Your task to perform on an android device: open sync settings in chrome Image 0: 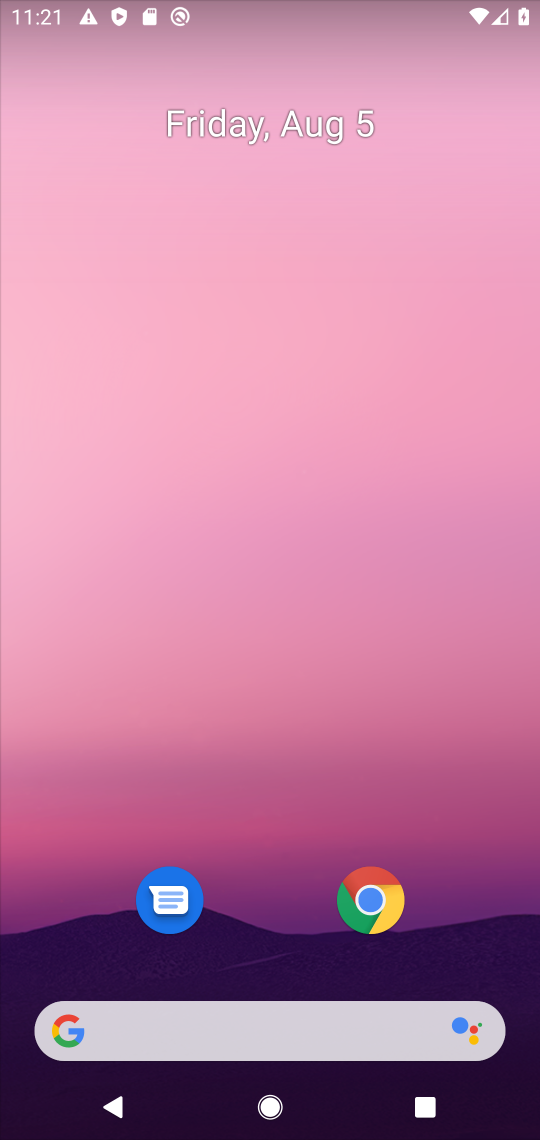
Step 0: click (369, 907)
Your task to perform on an android device: open sync settings in chrome Image 1: 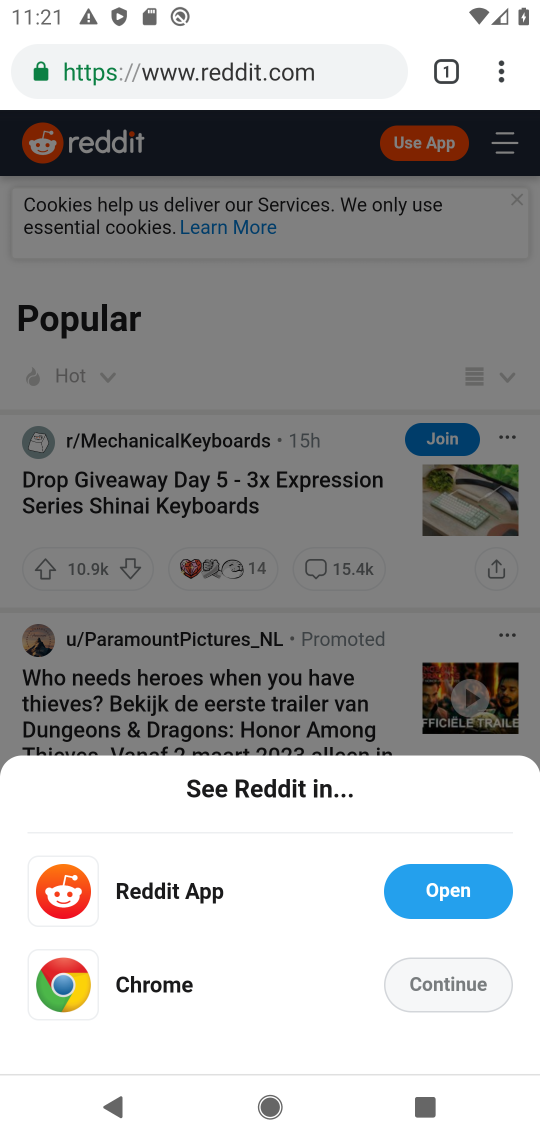
Step 1: click (499, 76)
Your task to perform on an android device: open sync settings in chrome Image 2: 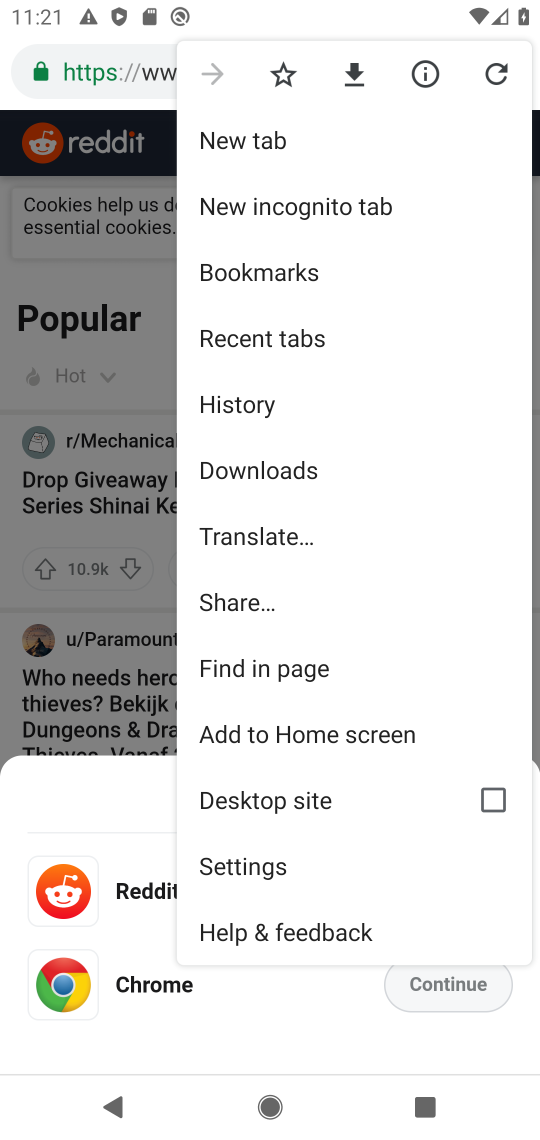
Step 2: click (245, 859)
Your task to perform on an android device: open sync settings in chrome Image 3: 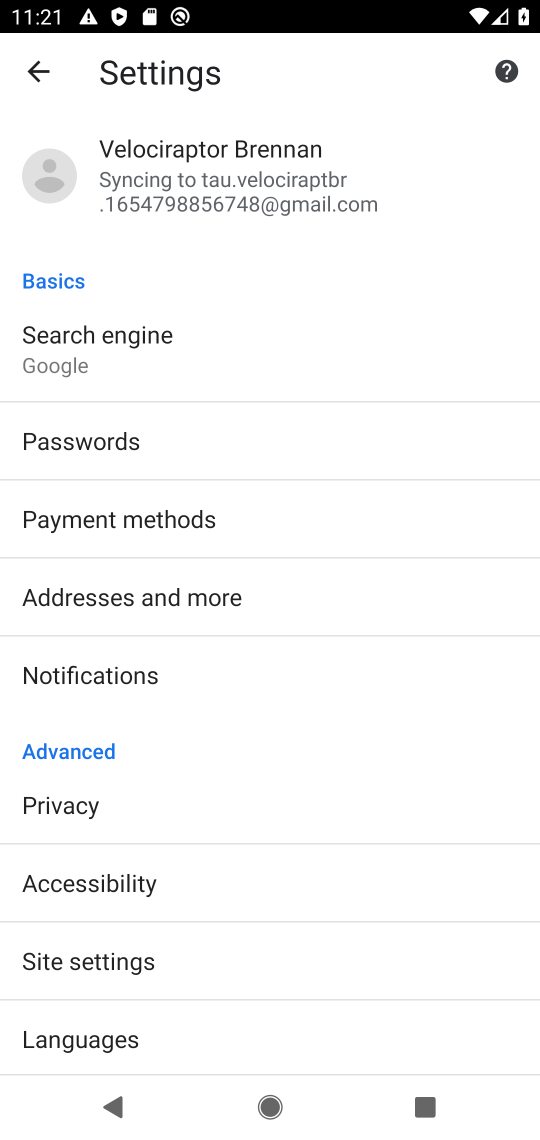
Step 3: click (68, 960)
Your task to perform on an android device: open sync settings in chrome Image 4: 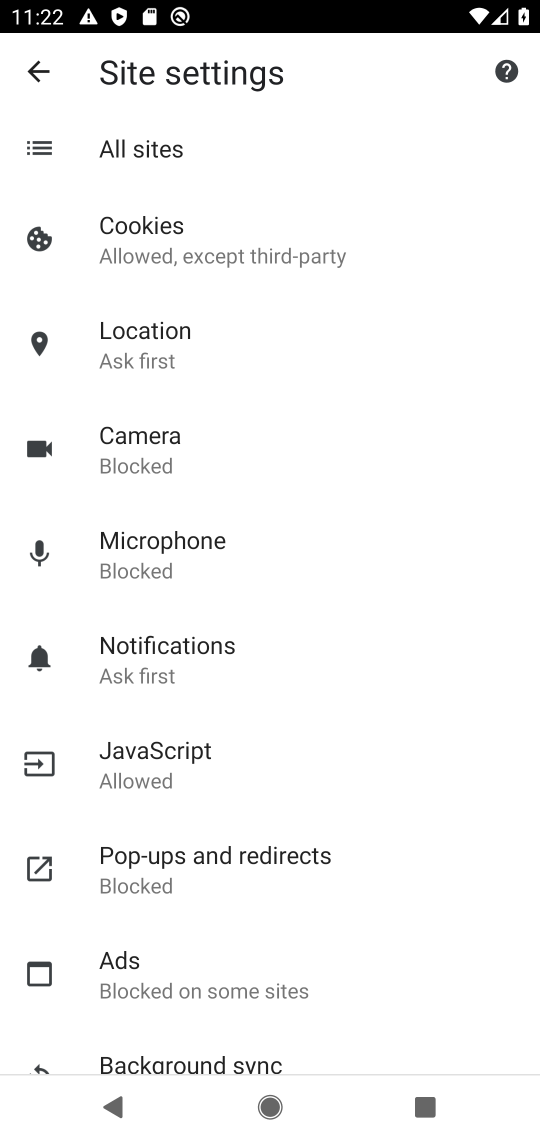
Step 4: drag from (164, 1034) to (107, 423)
Your task to perform on an android device: open sync settings in chrome Image 5: 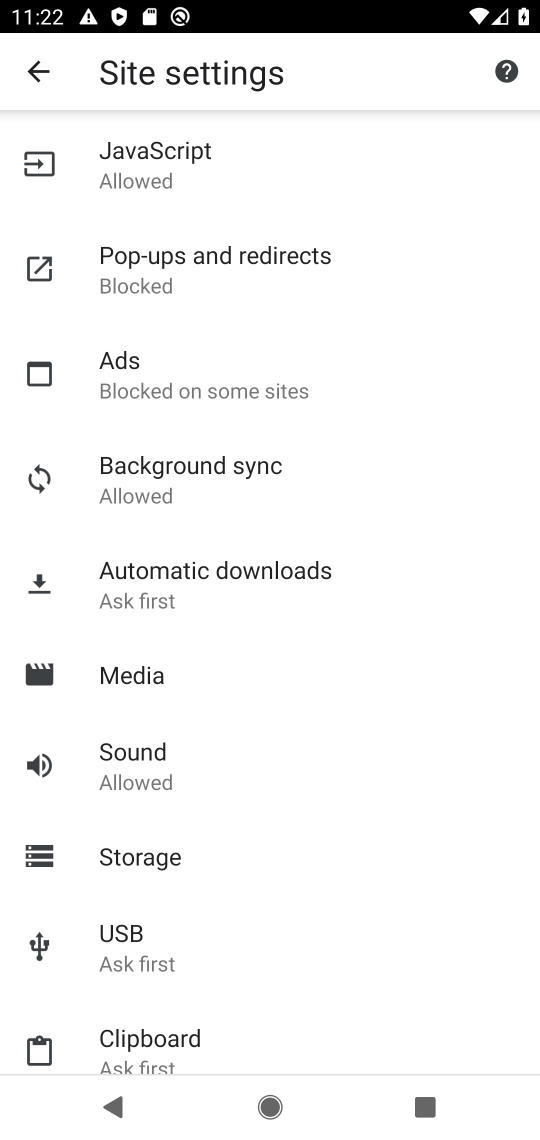
Step 5: click (146, 476)
Your task to perform on an android device: open sync settings in chrome Image 6: 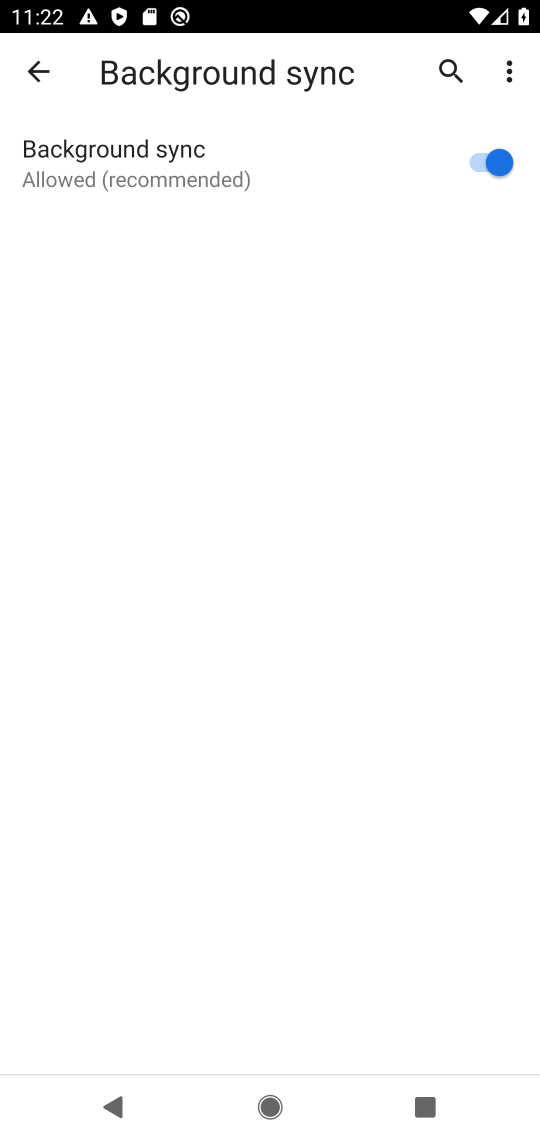
Step 6: task complete